Your task to perform on an android device: Go to privacy settings Image 0: 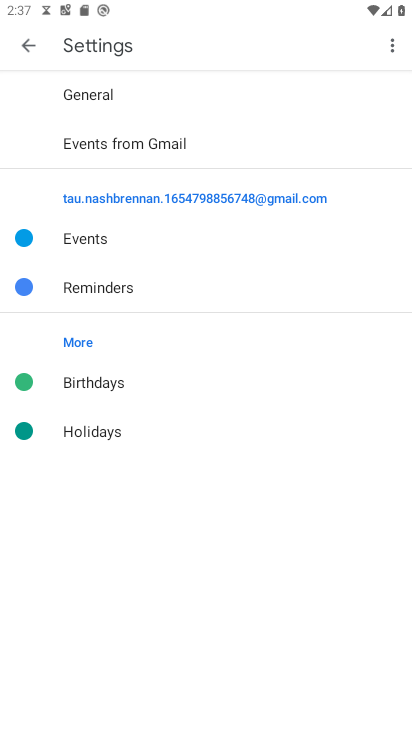
Step 0: press home button
Your task to perform on an android device: Go to privacy settings Image 1: 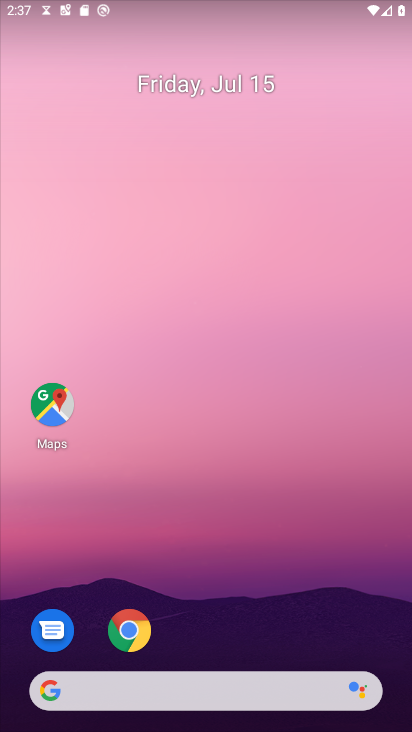
Step 1: drag from (242, 557) to (149, 0)
Your task to perform on an android device: Go to privacy settings Image 2: 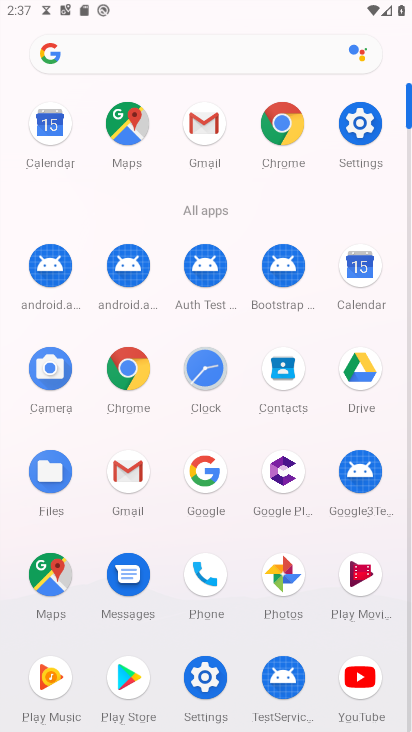
Step 2: click (352, 115)
Your task to perform on an android device: Go to privacy settings Image 3: 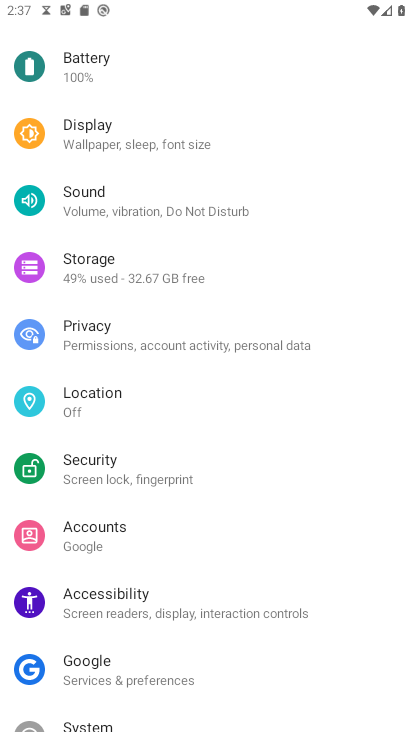
Step 3: click (146, 329)
Your task to perform on an android device: Go to privacy settings Image 4: 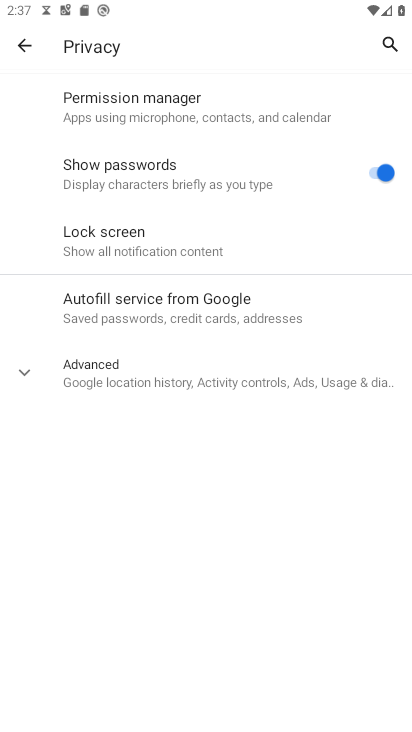
Step 4: task complete